Your task to perform on an android device: Go to sound settings Image 0: 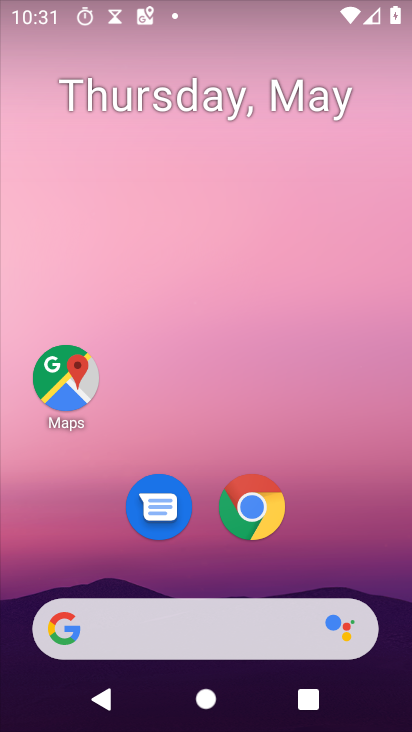
Step 0: drag from (161, 728) to (196, 26)
Your task to perform on an android device: Go to sound settings Image 1: 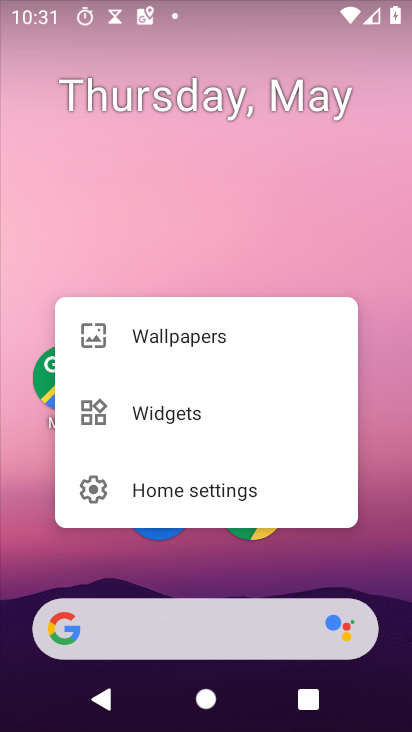
Step 1: press home button
Your task to perform on an android device: Go to sound settings Image 2: 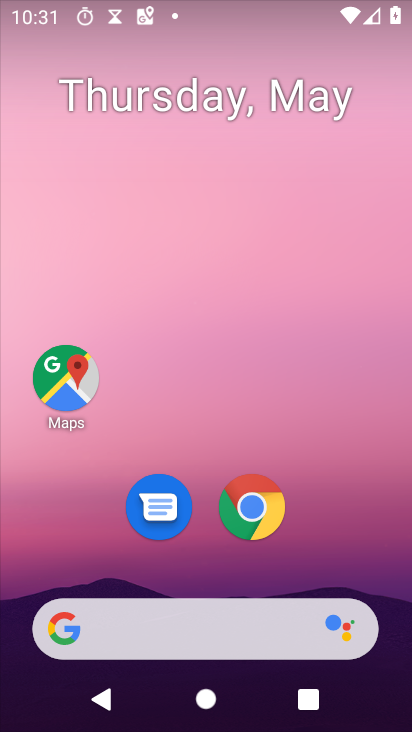
Step 2: drag from (154, 730) to (194, 46)
Your task to perform on an android device: Go to sound settings Image 3: 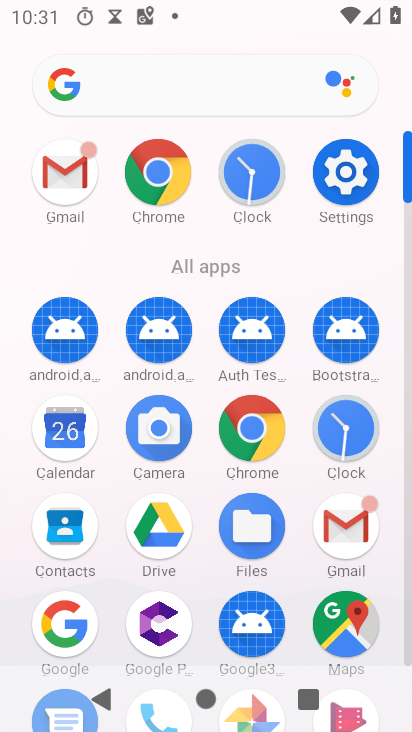
Step 3: click (340, 183)
Your task to perform on an android device: Go to sound settings Image 4: 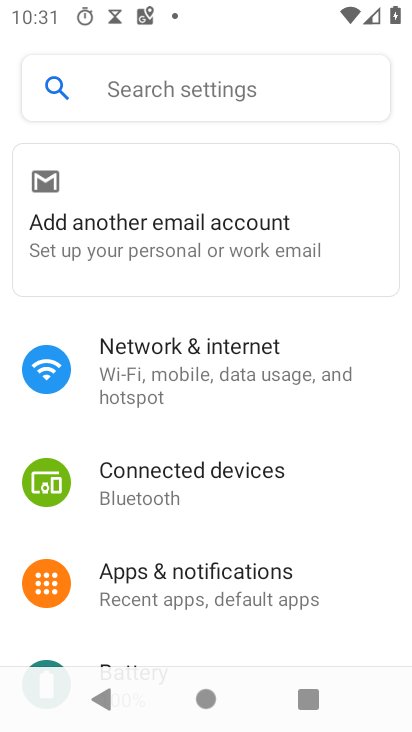
Step 4: drag from (297, 620) to (270, 169)
Your task to perform on an android device: Go to sound settings Image 5: 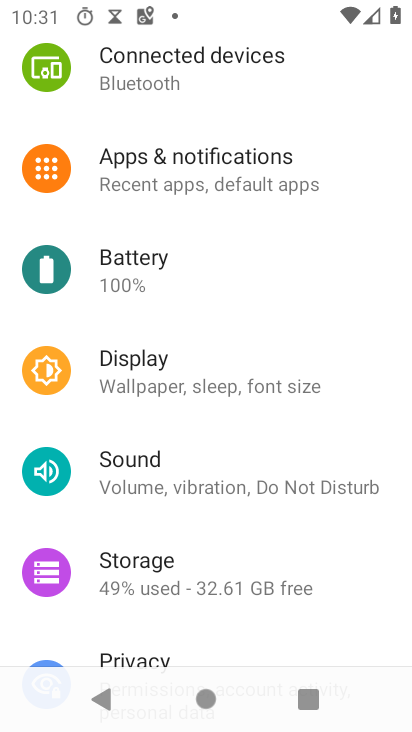
Step 5: drag from (322, 615) to (369, 111)
Your task to perform on an android device: Go to sound settings Image 6: 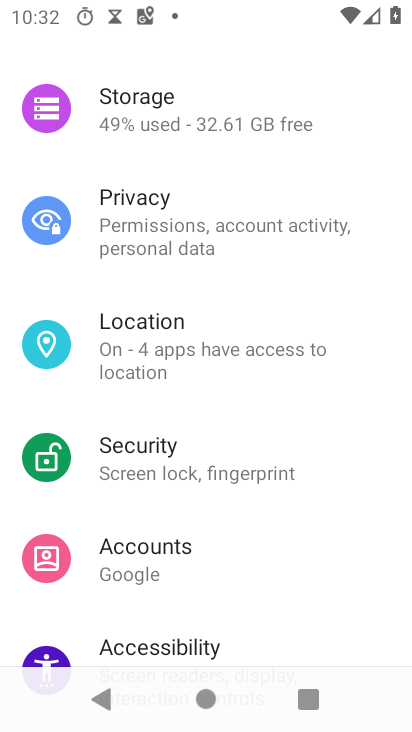
Step 6: drag from (304, 578) to (302, 722)
Your task to perform on an android device: Go to sound settings Image 7: 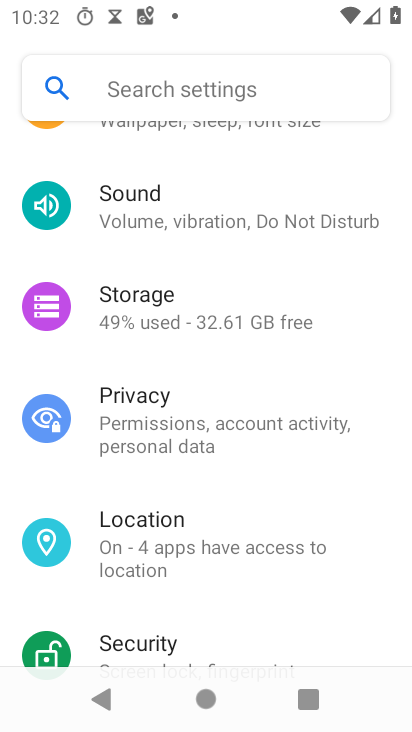
Step 7: click (259, 219)
Your task to perform on an android device: Go to sound settings Image 8: 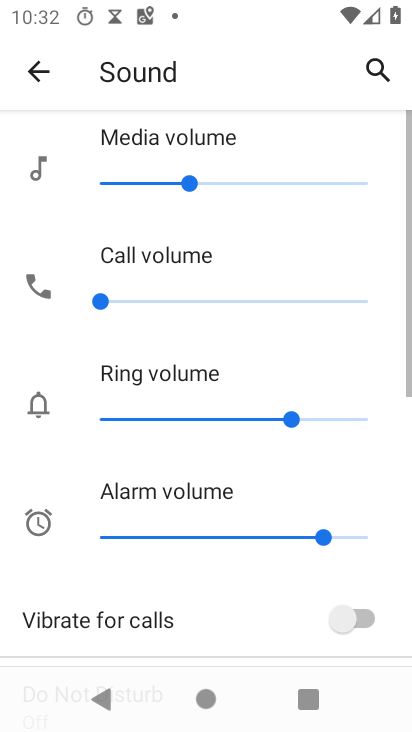
Step 8: task complete